Your task to perform on an android device: refresh tabs in the chrome app Image 0: 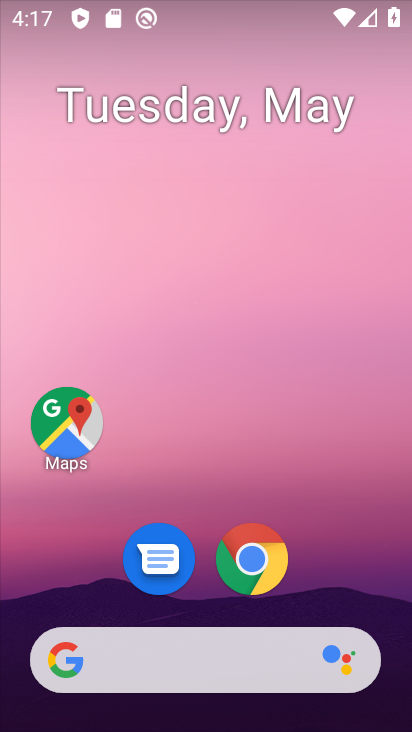
Step 0: click (269, 543)
Your task to perform on an android device: refresh tabs in the chrome app Image 1: 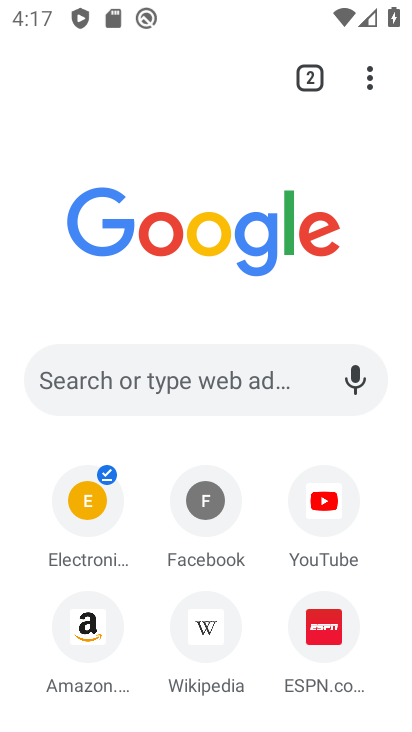
Step 1: click (367, 89)
Your task to perform on an android device: refresh tabs in the chrome app Image 2: 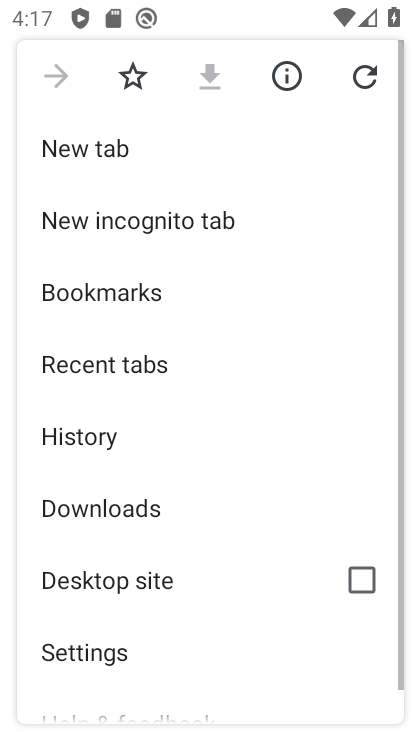
Step 2: click (354, 76)
Your task to perform on an android device: refresh tabs in the chrome app Image 3: 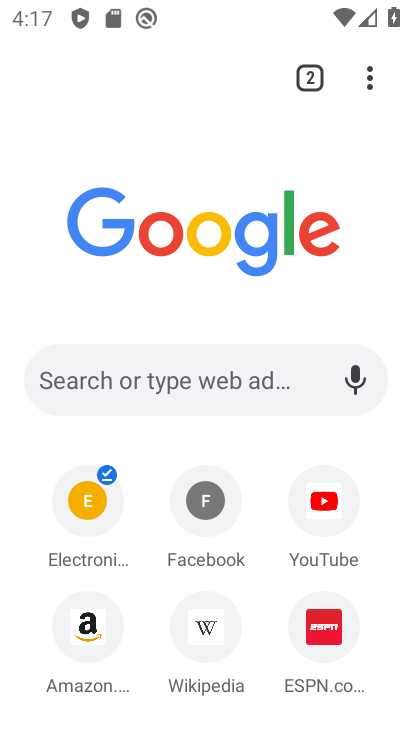
Step 3: click (314, 84)
Your task to perform on an android device: refresh tabs in the chrome app Image 4: 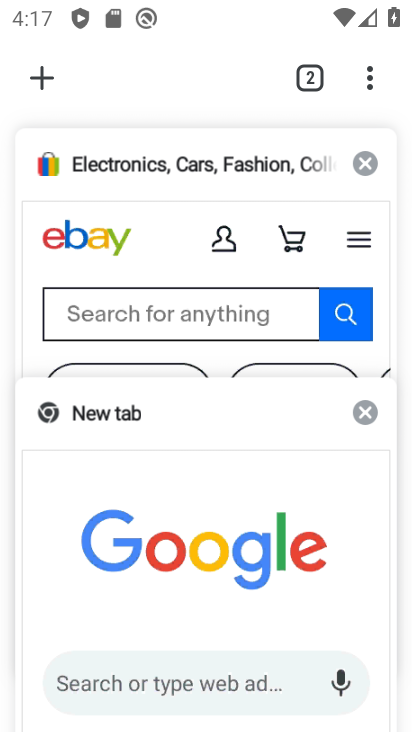
Step 4: click (287, 150)
Your task to perform on an android device: refresh tabs in the chrome app Image 5: 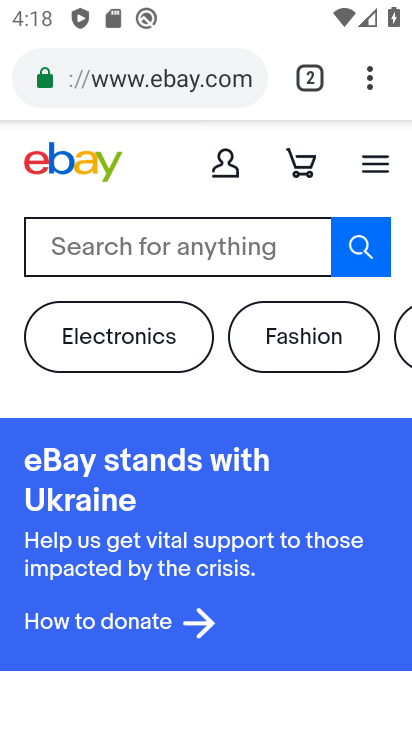
Step 5: click (376, 67)
Your task to perform on an android device: refresh tabs in the chrome app Image 6: 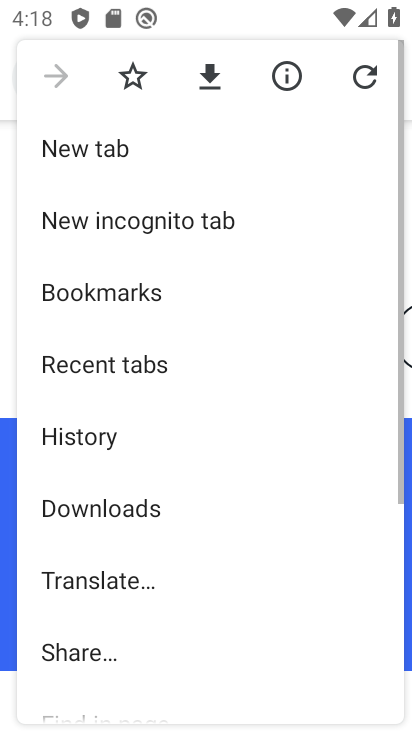
Step 6: click (367, 70)
Your task to perform on an android device: refresh tabs in the chrome app Image 7: 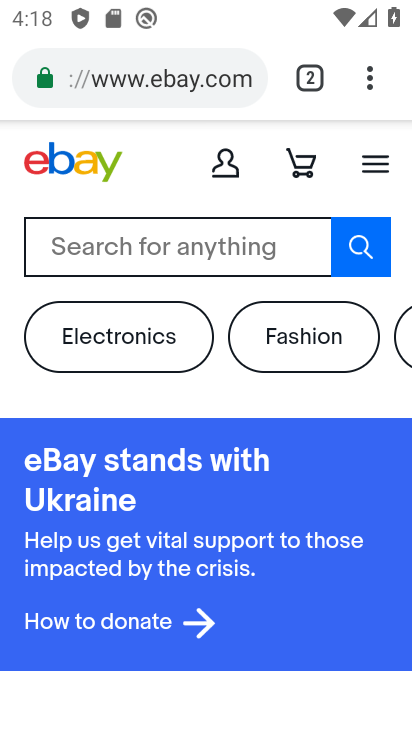
Step 7: task complete